Your task to perform on an android device: Open calendar and show me the fourth week of next month Image 0: 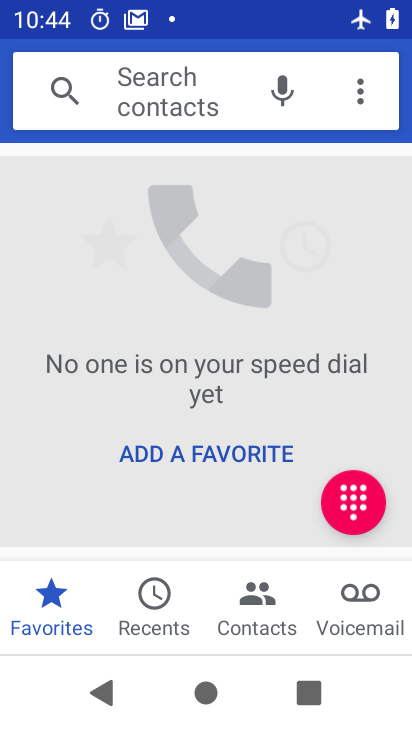
Step 0: press home button
Your task to perform on an android device: Open calendar and show me the fourth week of next month Image 1: 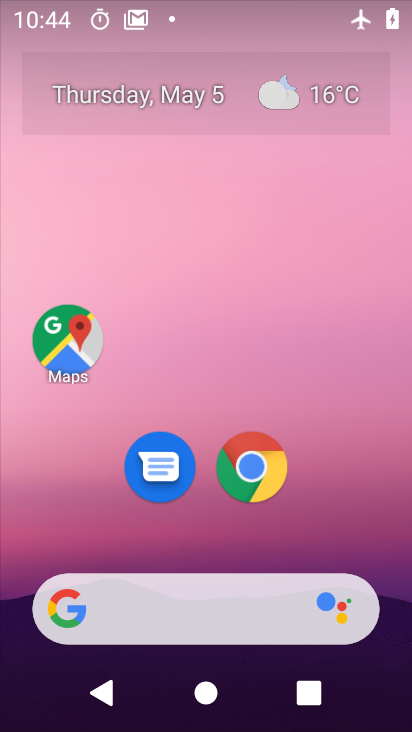
Step 1: drag from (193, 521) to (11, 0)
Your task to perform on an android device: Open calendar and show me the fourth week of next month Image 2: 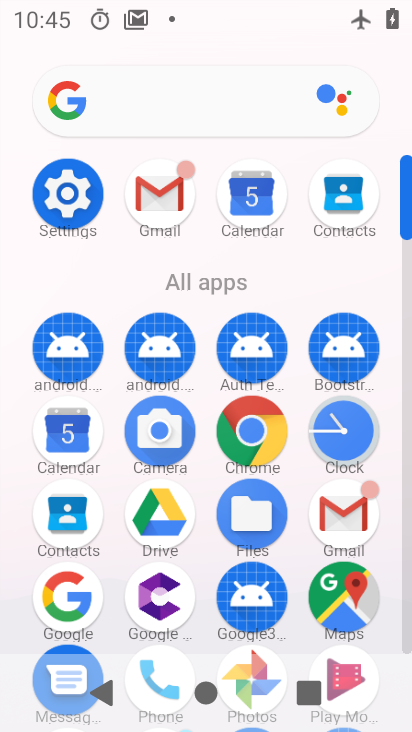
Step 2: click (58, 436)
Your task to perform on an android device: Open calendar and show me the fourth week of next month Image 3: 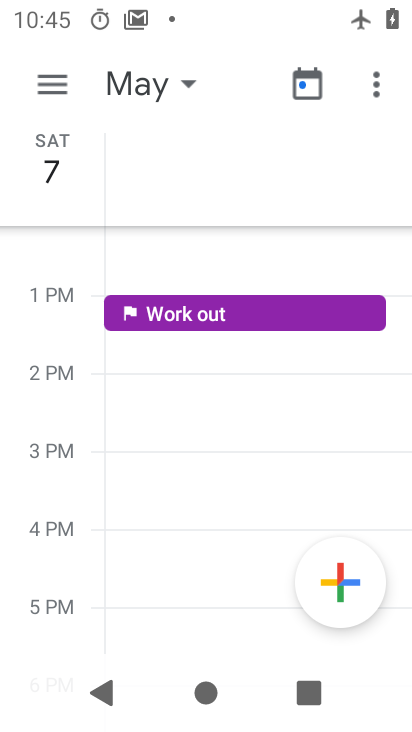
Step 3: click (190, 86)
Your task to perform on an android device: Open calendar and show me the fourth week of next month Image 4: 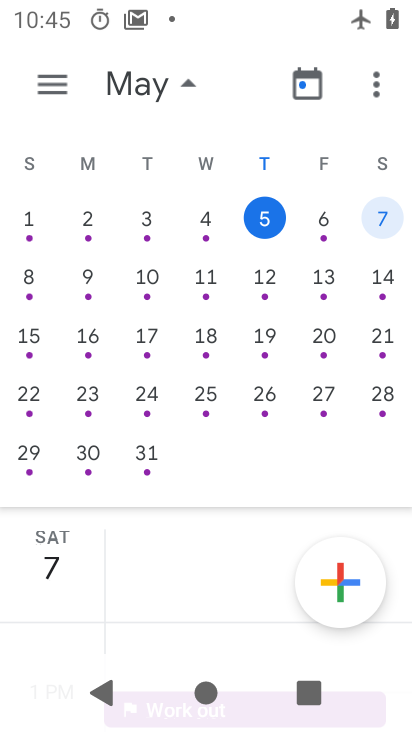
Step 4: drag from (399, 353) to (14, 342)
Your task to perform on an android device: Open calendar and show me the fourth week of next month Image 5: 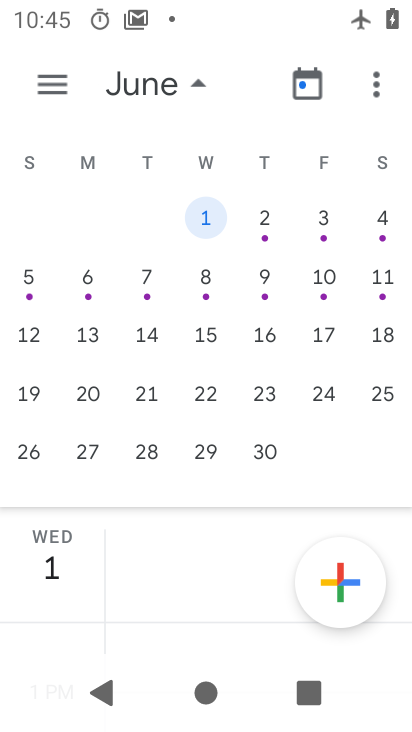
Step 5: click (56, 92)
Your task to perform on an android device: Open calendar and show me the fourth week of next month Image 6: 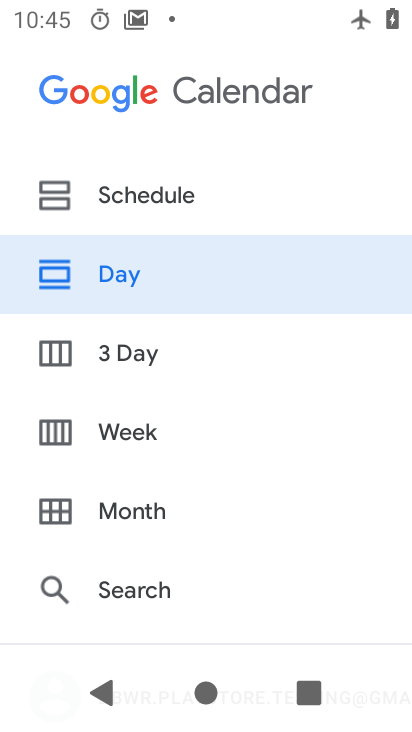
Step 6: click (139, 435)
Your task to perform on an android device: Open calendar and show me the fourth week of next month Image 7: 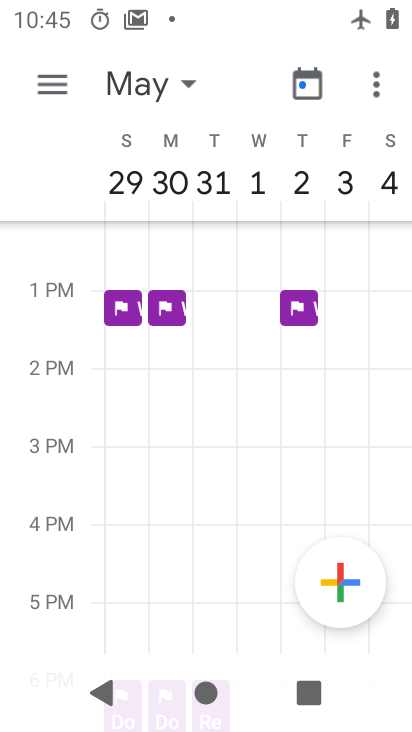
Step 7: task complete